Your task to perform on an android device: Open settings on Google Maps Image 0: 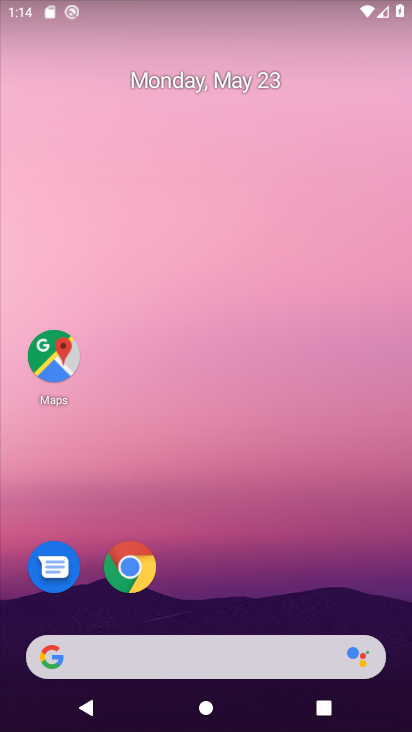
Step 0: drag from (252, 555) to (231, 174)
Your task to perform on an android device: Open settings on Google Maps Image 1: 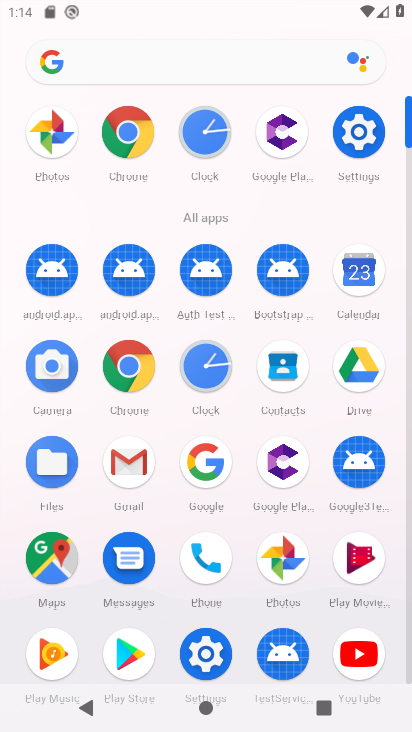
Step 1: click (288, 567)
Your task to perform on an android device: Open settings on Google Maps Image 2: 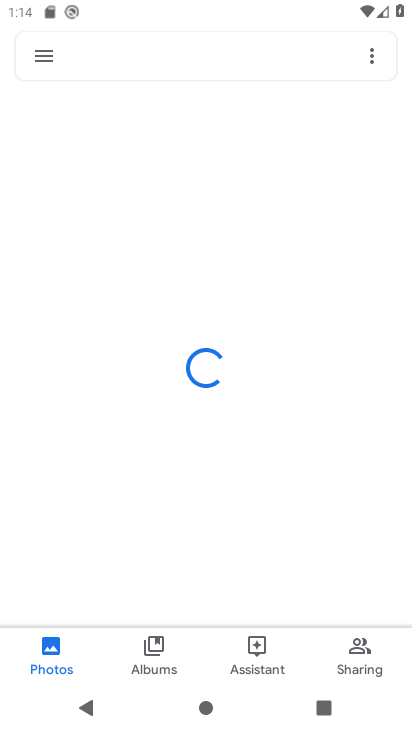
Step 2: press home button
Your task to perform on an android device: Open settings on Google Maps Image 3: 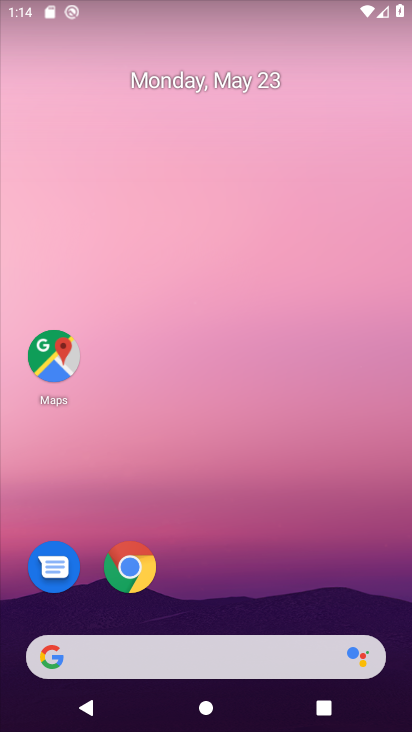
Step 3: drag from (211, 554) to (195, 132)
Your task to perform on an android device: Open settings on Google Maps Image 4: 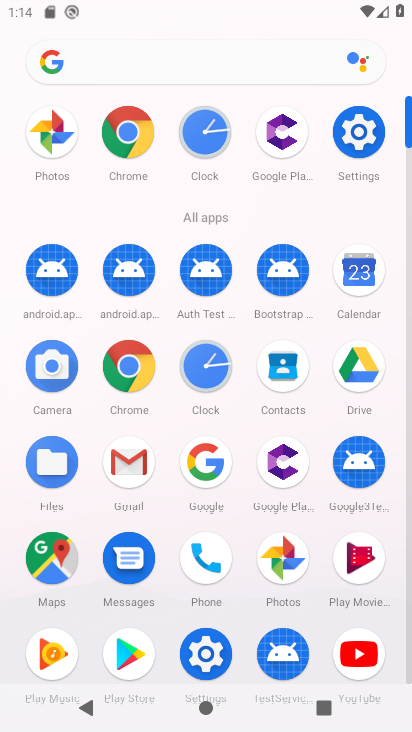
Step 4: click (51, 583)
Your task to perform on an android device: Open settings on Google Maps Image 5: 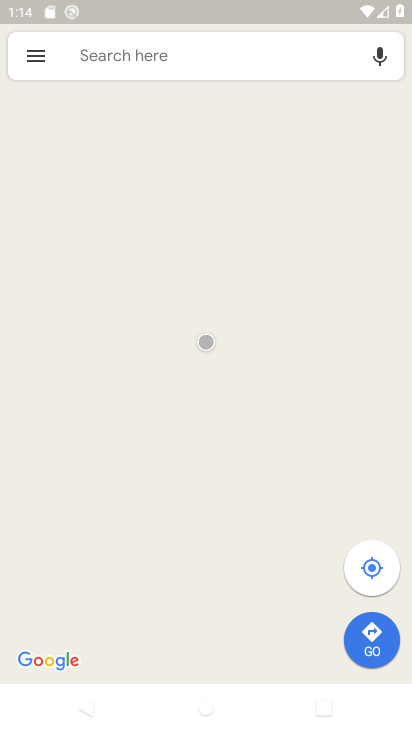
Step 5: click (37, 46)
Your task to perform on an android device: Open settings on Google Maps Image 6: 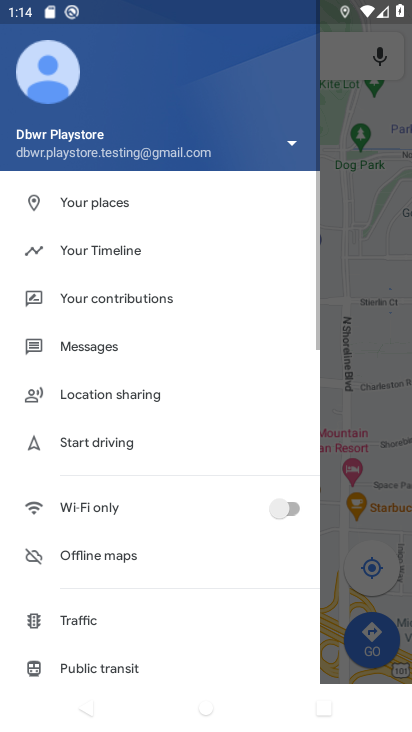
Step 6: drag from (122, 605) to (95, 302)
Your task to perform on an android device: Open settings on Google Maps Image 7: 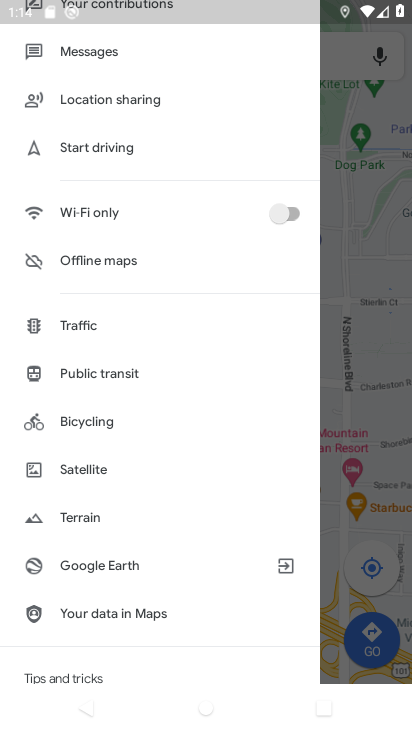
Step 7: drag from (99, 572) to (83, 286)
Your task to perform on an android device: Open settings on Google Maps Image 8: 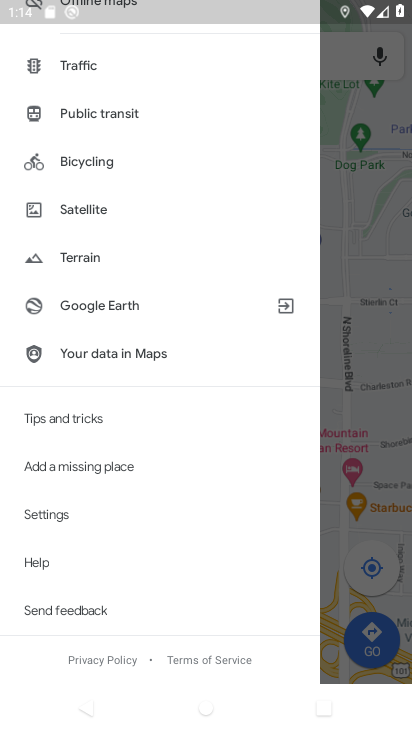
Step 8: click (66, 516)
Your task to perform on an android device: Open settings on Google Maps Image 9: 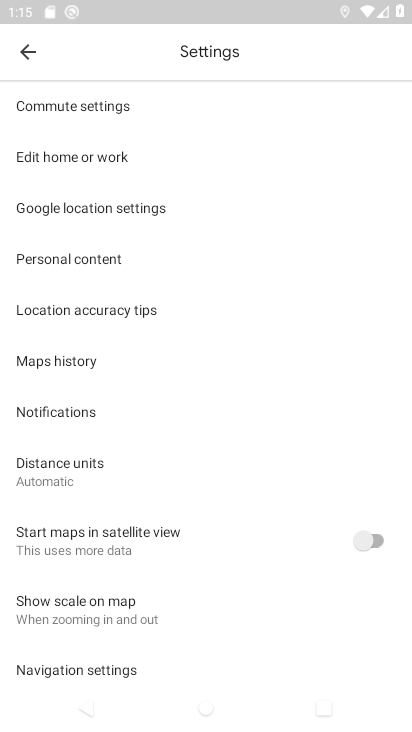
Step 9: task complete